Your task to perform on an android device: Go to CNN.com Image 0: 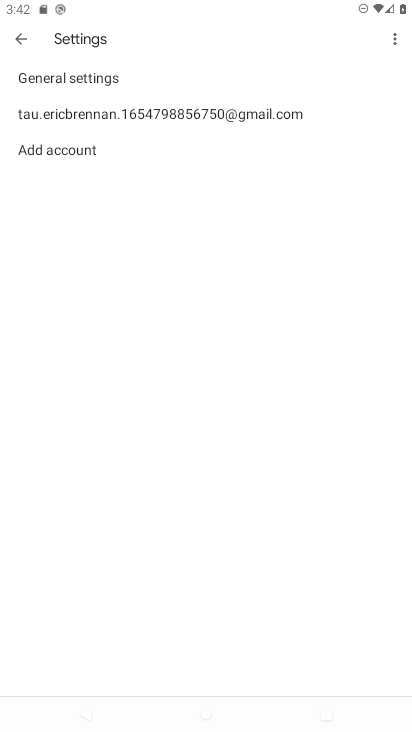
Step 0: press home button
Your task to perform on an android device: Go to CNN.com Image 1: 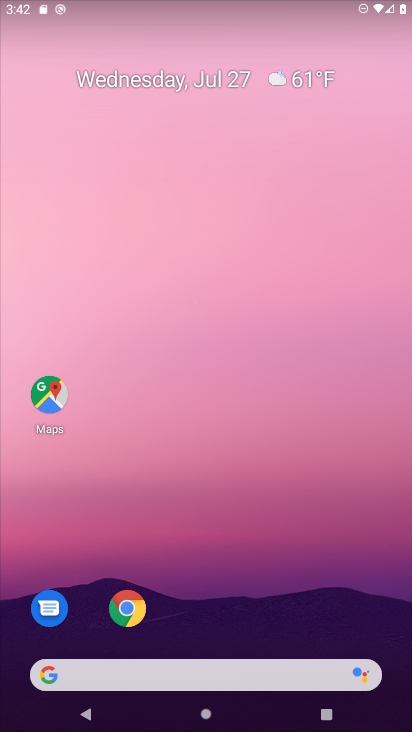
Step 1: click (126, 612)
Your task to perform on an android device: Go to CNN.com Image 2: 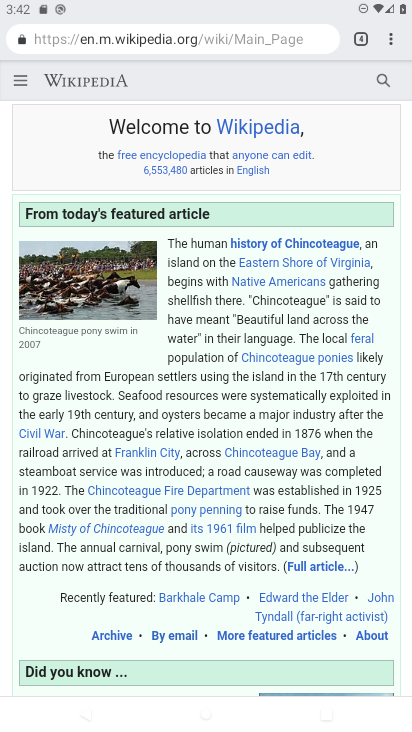
Step 2: click (391, 43)
Your task to perform on an android device: Go to CNN.com Image 3: 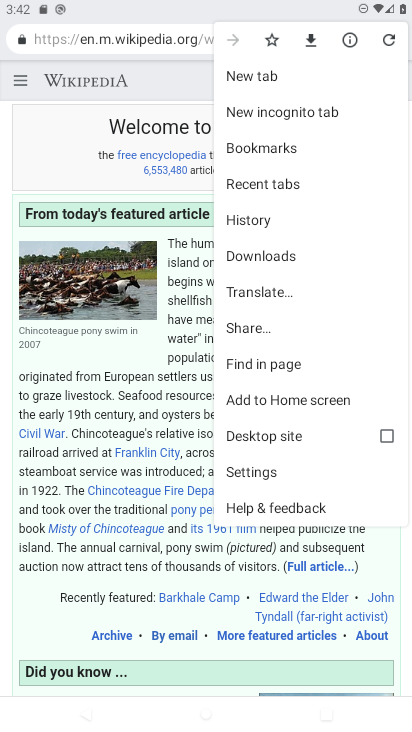
Step 3: click (258, 74)
Your task to perform on an android device: Go to CNN.com Image 4: 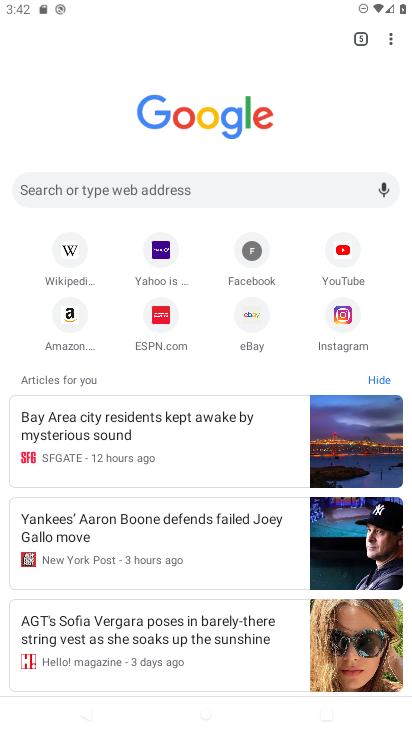
Step 4: click (202, 191)
Your task to perform on an android device: Go to CNN.com Image 5: 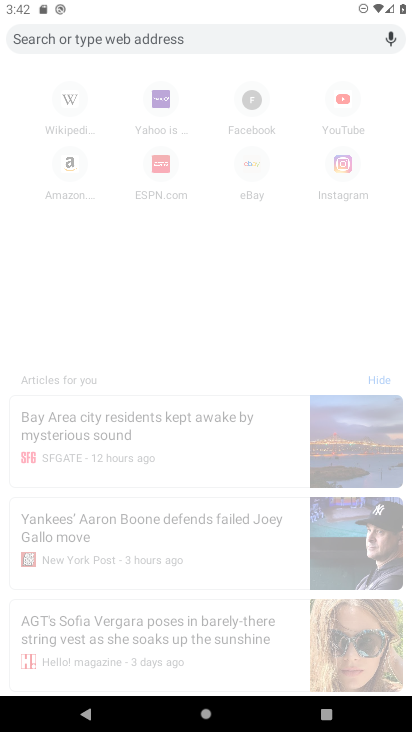
Step 5: type "CNN.com"
Your task to perform on an android device: Go to CNN.com Image 6: 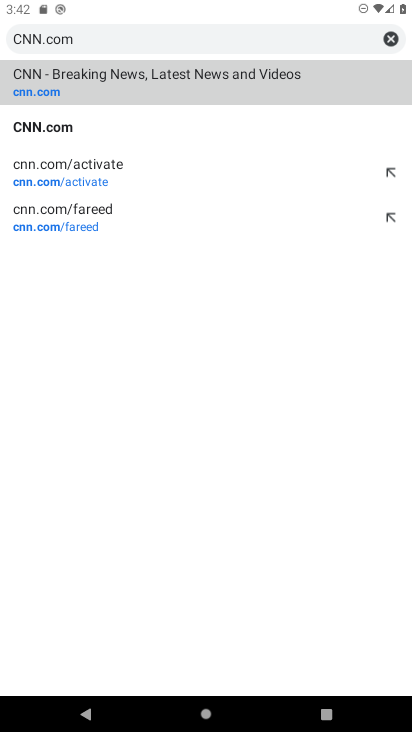
Step 6: click (54, 81)
Your task to perform on an android device: Go to CNN.com Image 7: 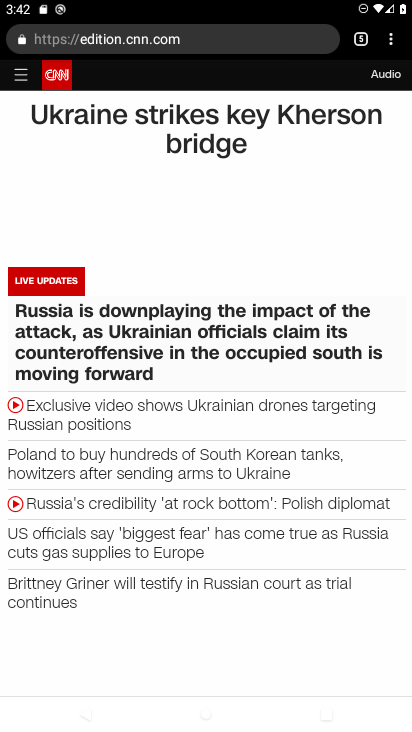
Step 7: task complete